Your task to perform on an android device: Toggle the flashlight Image 0: 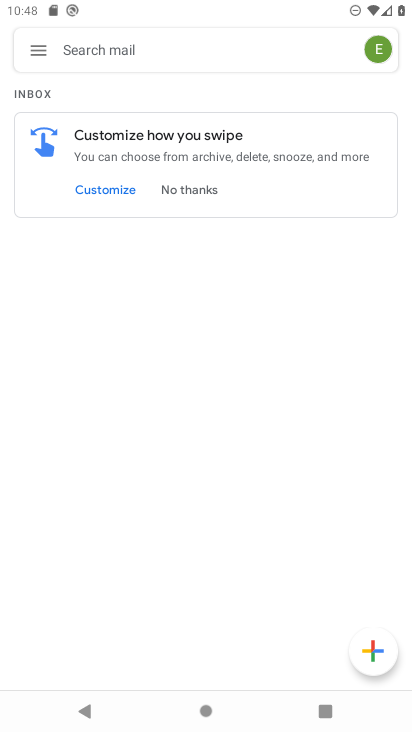
Step 0: press home button
Your task to perform on an android device: Toggle the flashlight Image 1: 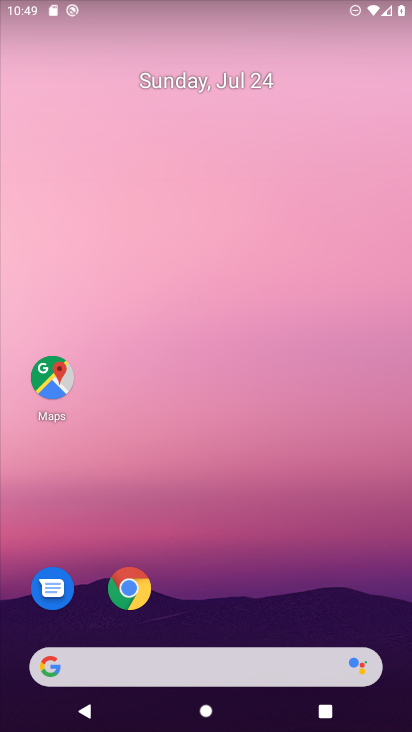
Step 1: task complete